Your task to perform on an android device: change your default location settings in chrome Image 0: 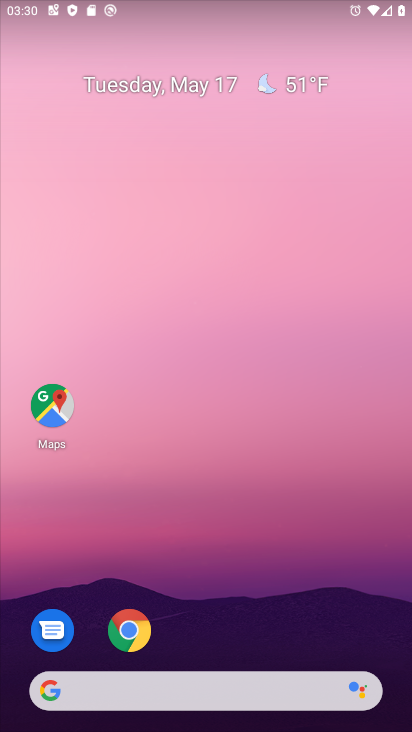
Step 0: click (128, 642)
Your task to perform on an android device: change your default location settings in chrome Image 1: 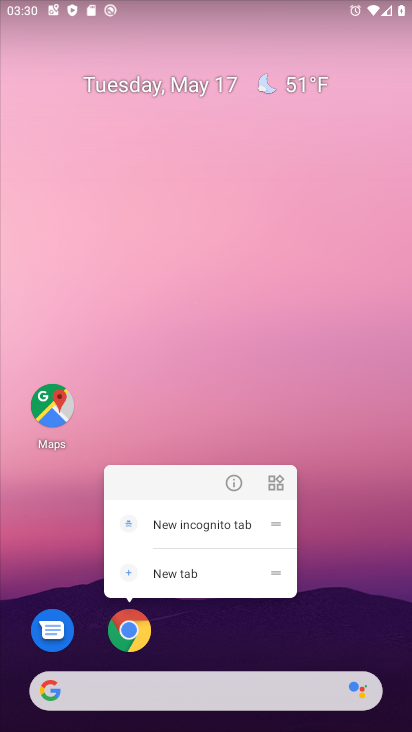
Step 1: click (127, 632)
Your task to perform on an android device: change your default location settings in chrome Image 2: 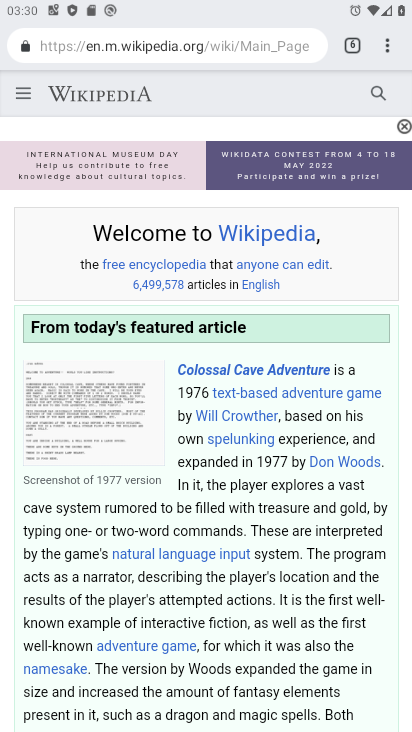
Step 2: drag from (389, 37) to (241, 546)
Your task to perform on an android device: change your default location settings in chrome Image 3: 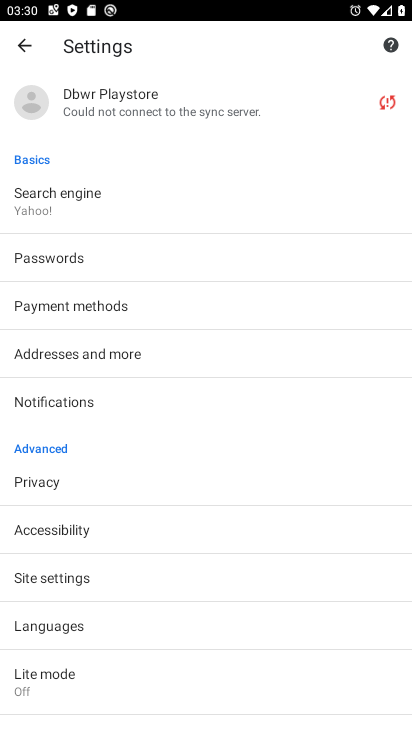
Step 3: drag from (95, 600) to (231, 121)
Your task to perform on an android device: change your default location settings in chrome Image 4: 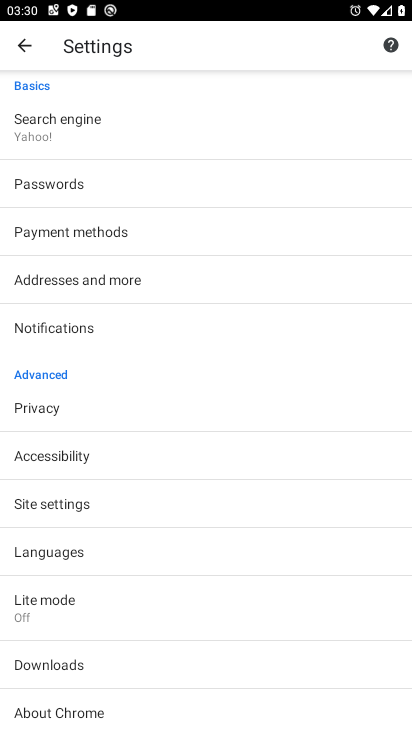
Step 4: click (54, 502)
Your task to perform on an android device: change your default location settings in chrome Image 5: 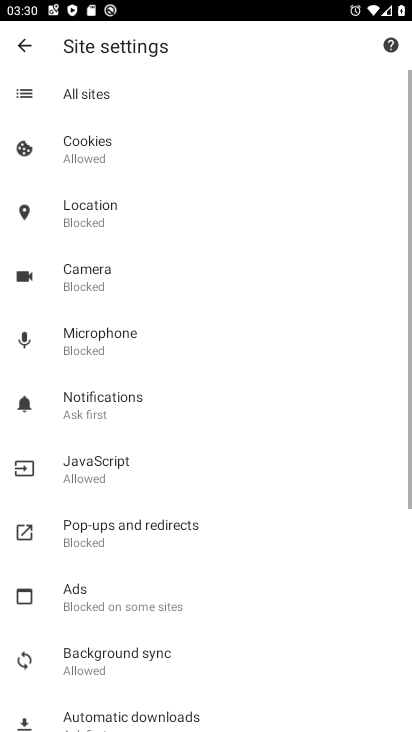
Step 5: click (93, 212)
Your task to perform on an android device: change your default location settings in chrome Image 6: 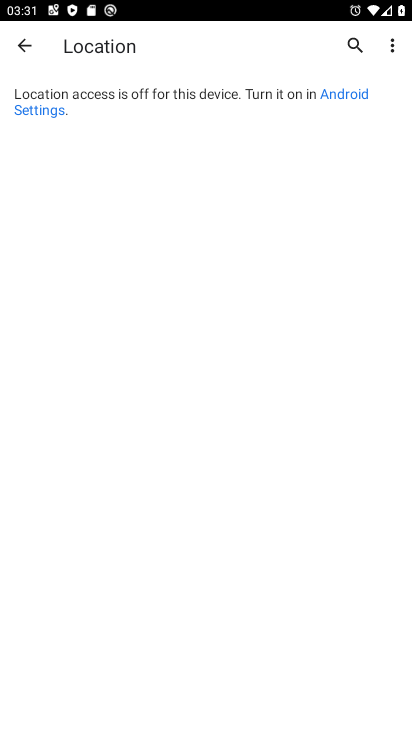
Step 6: click (344, 99)
Your task to perform on an android device: change your default location settings in chrome Image 7: 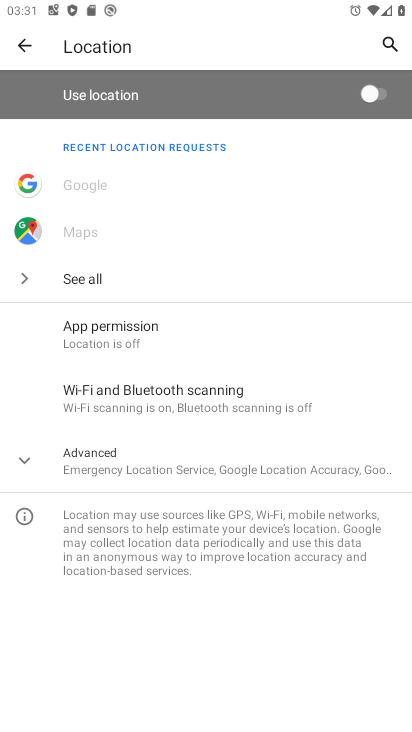
Step 7: click (372, 94)
Your task to perform on an android device: change your default location settings in chrome Image 8: 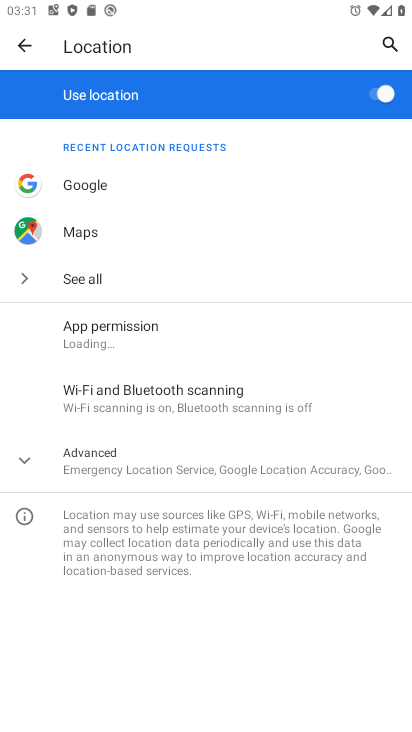
Step 8: click (28, 40)
Your task to perform on an android device: change your default location settings in chrome Image 9: 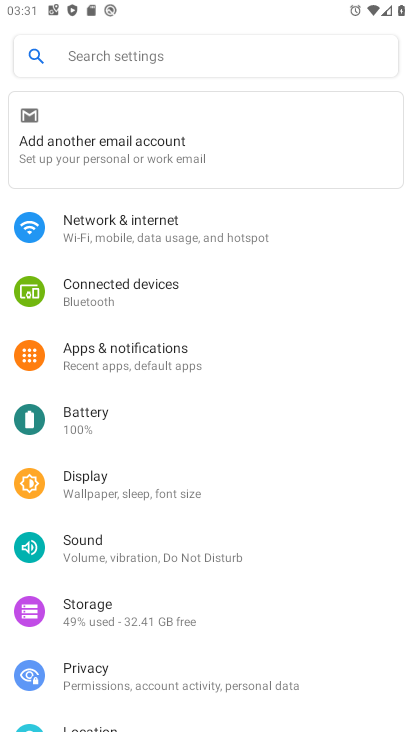
Step 9: drag from (123, 653) to (194, 321)
Your task to perform on an android device: change your default location settings in chrome Image 10: 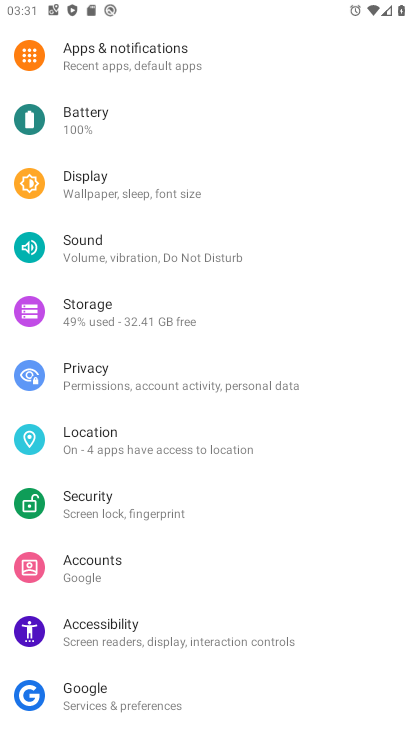
Step 10: click (85, 432)
Your task to perform on an android device: change your default location settings in chrome Image 11: 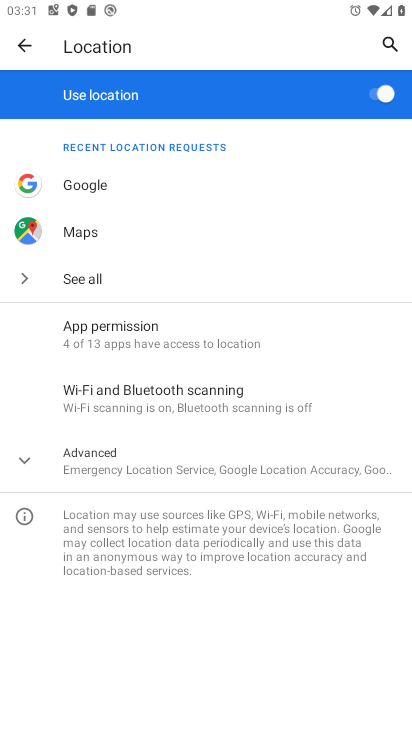
Step 11: task complete